Your task to perform on an android device: Go to CNN.com Image 0: 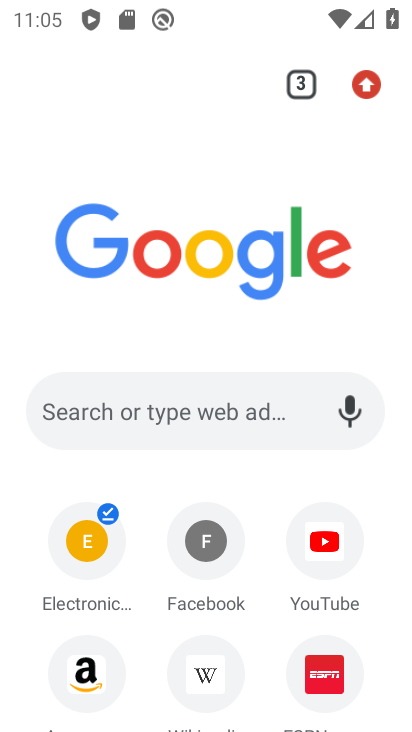
Step 0: click (82, 402)
Your task to perform on an android device: Go to CNN.com Image 1: 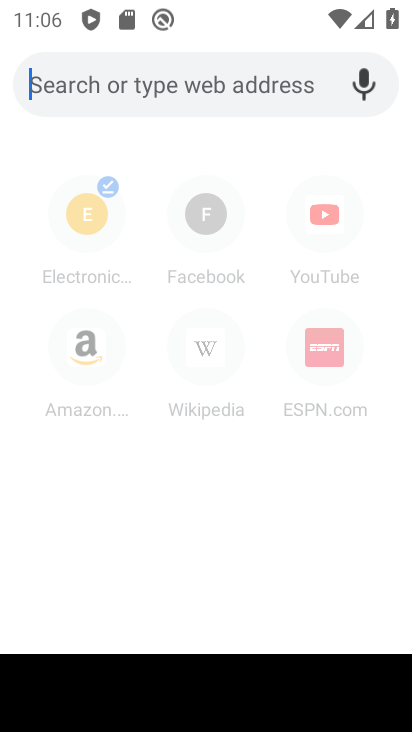
Step 1: type "cnn"
Your task to perform on an android device: Go to CNN.com Image 2: 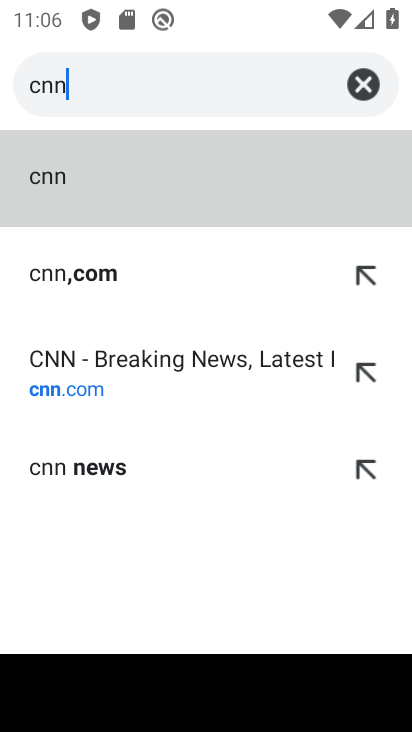
Step 2: click (72, 386)
Your task to perform on an android device: Go to CNN.com Image 3: 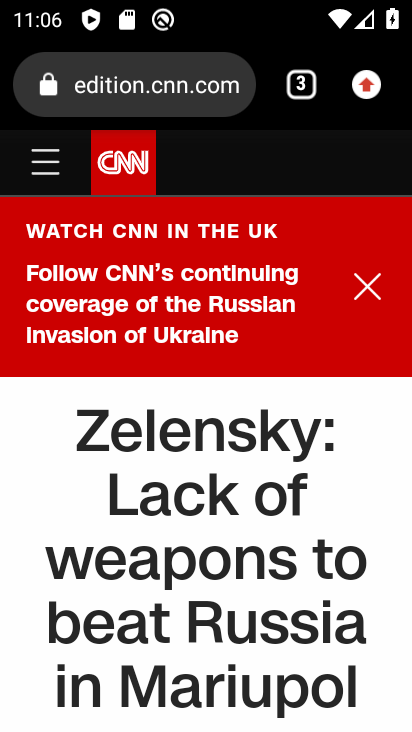
Step 3: task complete